Your task to perform on an android device: turn off improve location accuracy Image 0: 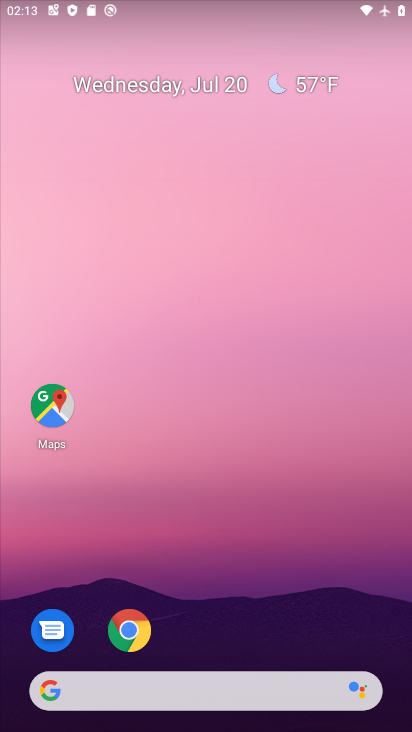
Step 0: drag from (216, 620) to (231, 101)
Your task to perform on an android device: turn off improve location accuracy Image 1: 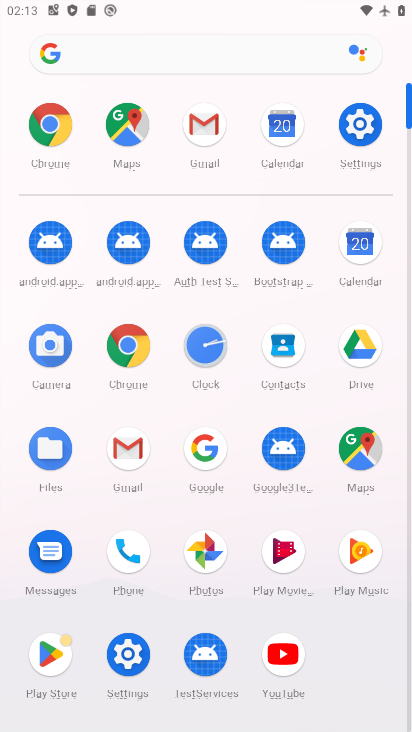
Step 1: click (365, 124)
Your task to perform on an android device: turn off improve location accuracy Image 2: 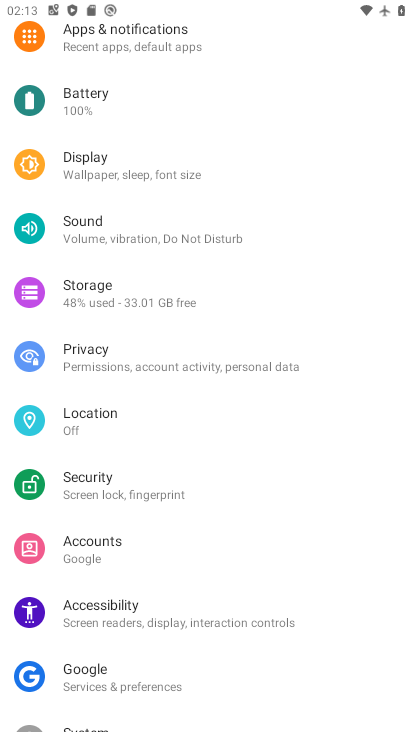
Step 2: click (90, 435)
Your task to perform on an android device: turn off improve location accuracy Image 3: 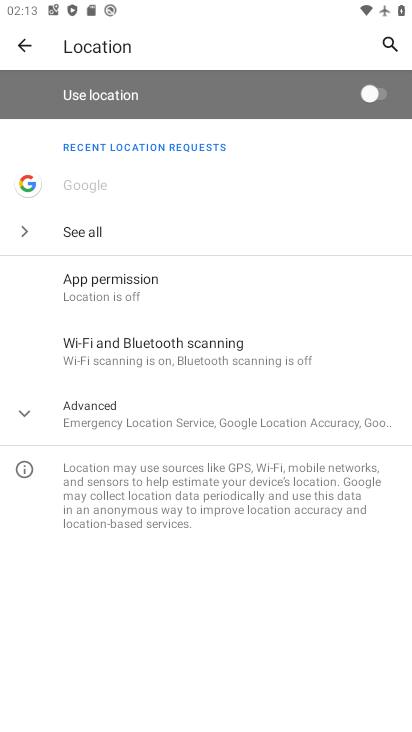
Step 3: click (207, 430)
Your task to perform on an android device: turn off improve location accuracy Image 4: 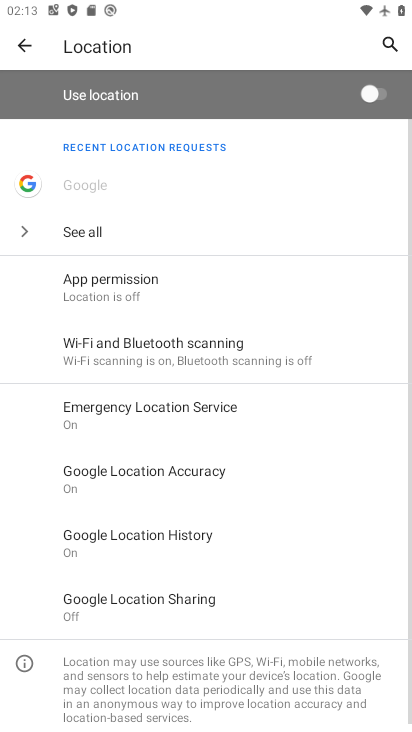
Step 4: click (188, 485)
Your task to perform on an android device: turn off improve location accuracy Image 5: 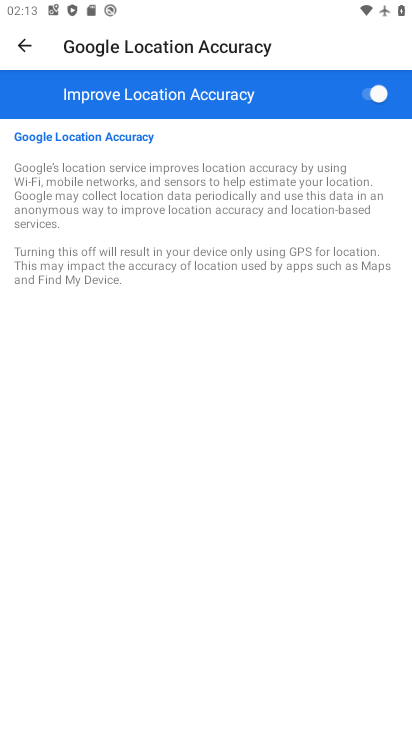
Step 5: click (350, 88)
Your task to perform on an android device: turn off improve location accuracy Image 6: 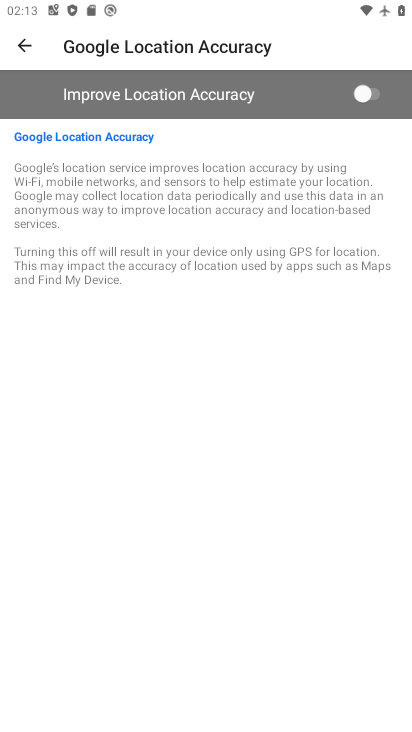
Step 6: task complete